Your task to perform on an android device: Go to Reddit.com Image 0: 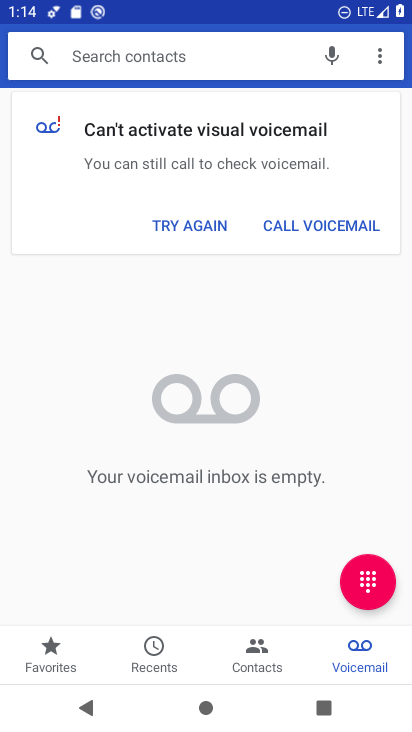
Step 0: press home button
Your task to perform on an android device: Go to Reddit.com Image 1: 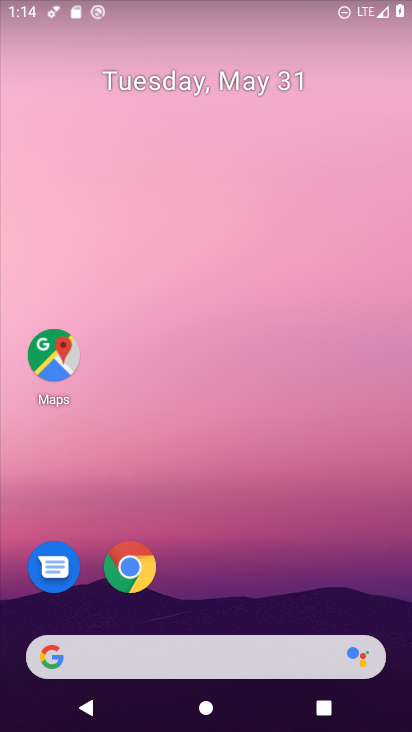
Step 1: click (144, 581)
Your task to perform on an android device: Go to Reddit.com Image 2: 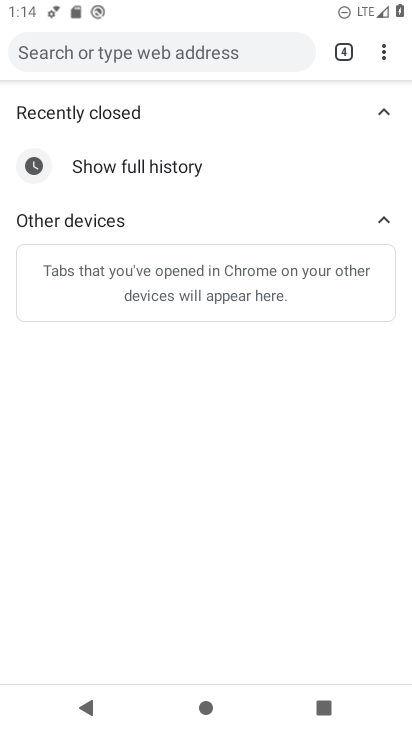
Step 2: click (213, 46)
Your task to perform on an android device: Go to Reddit.com Image 3: 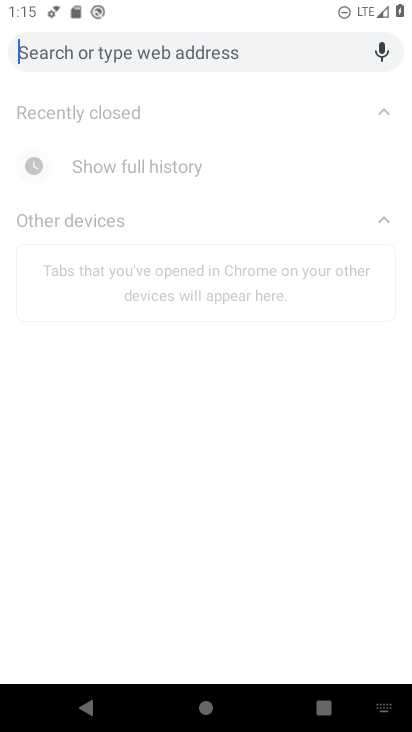
Step 3: click (198, 61)
Your task to perform on an android device: Go to Reddit.com Image 4: 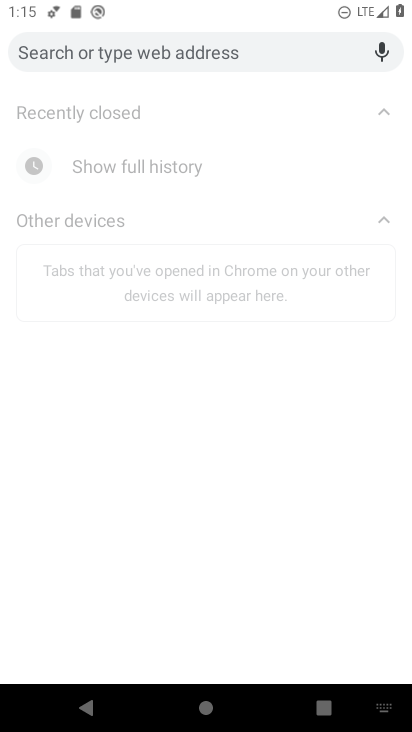
Step 4: type "Reddit.com"
Your task to perform on an android device: Go to Reddit.com Image 5: 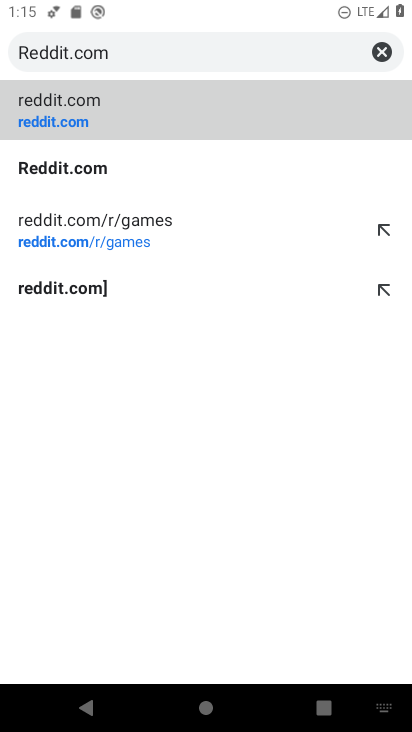
Step 5: click (75, 130)
Your task to perform on an android device: Go to Reddit.com Image 6: 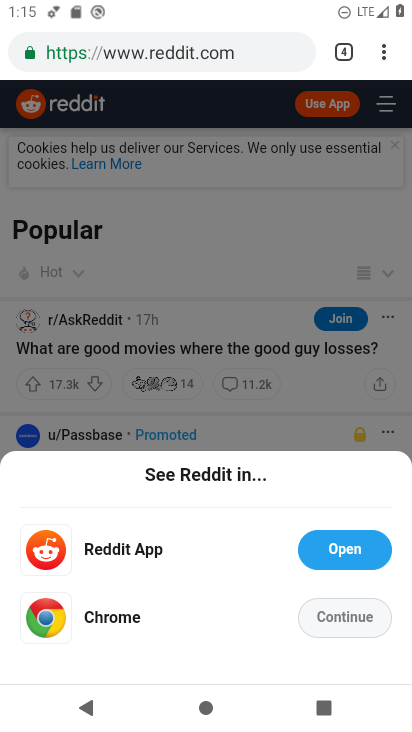
Step 6: click (350, 631)
Your task to perform on an android device: Go to Reddit.com Image 7: 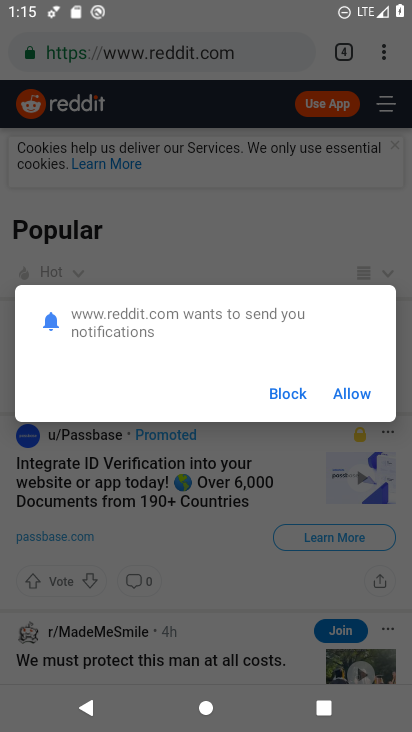
Step 7: click (343, 396)
Your task to perform on an android device: Go to Reddit.com Image 8: 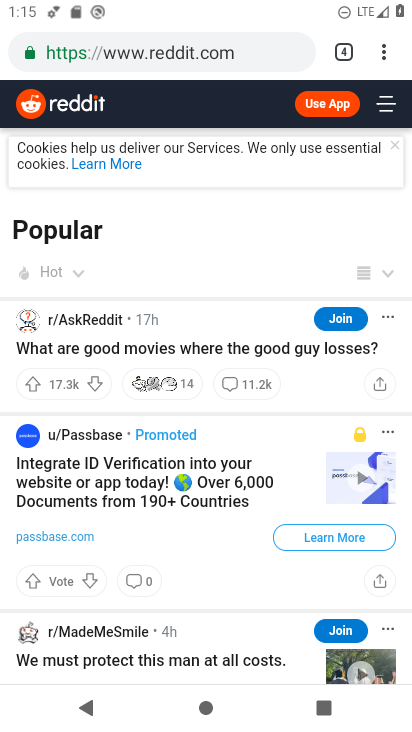
Step 8: task complete